Your task to perform on an android device: Open network settings Image 0: 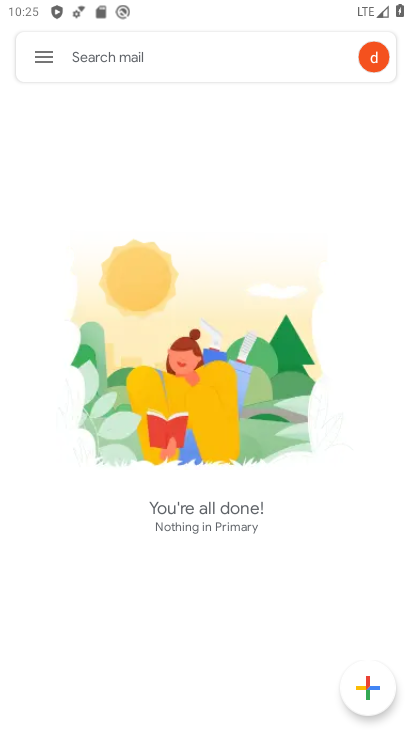
Step 0: press home button
Your task to perform on an android device: Open network settings Image 1: 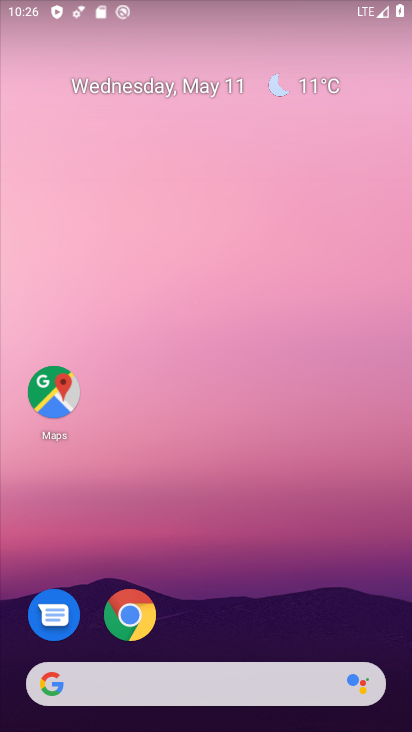
Step 1: drag from (256, 571) to (240, 107)
Your task to perform on an android device: Open network settings Image 2: 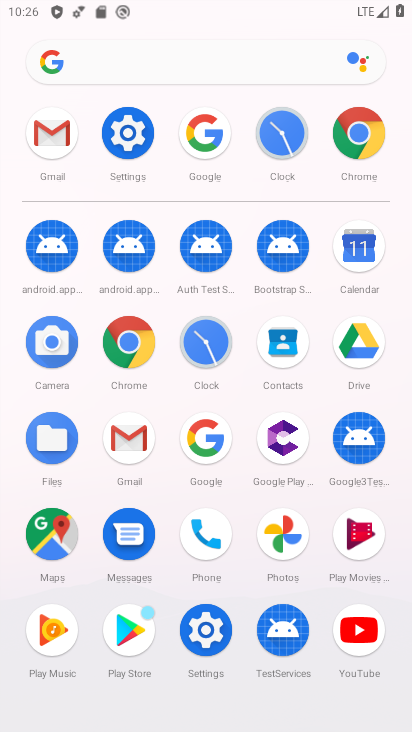
Step 2: click (129, 140)
Your task to perform on an android device: Open network settings Image 3: 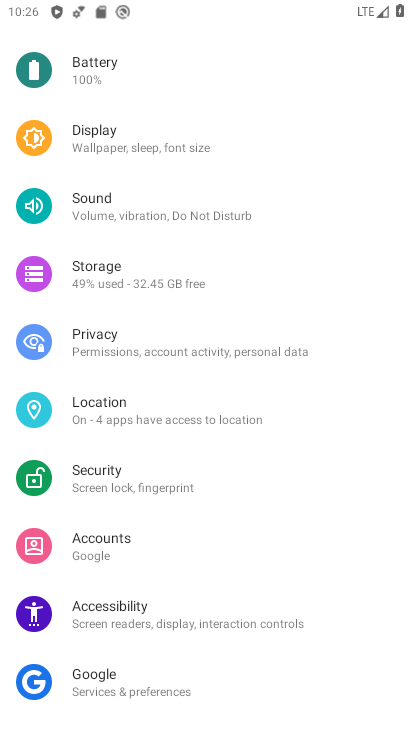
Step 3: drag from (159, 650) to (290, 33)
Your task to perform on an android device: Open network settings Image 4: 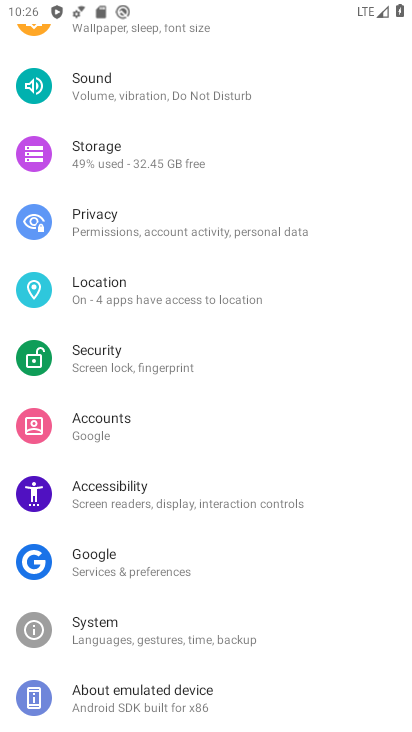
Step 4: drag from (189, 204) to (186, 719)
Your task to perform on an android device: Open network settings Image 5: 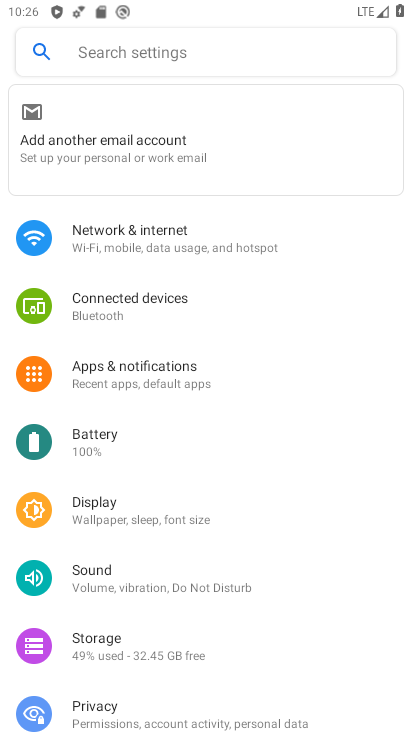
Step 5: drag from (196, 235) to (224, 617)
Your task to perform on an android device: Open network settings Image 6: 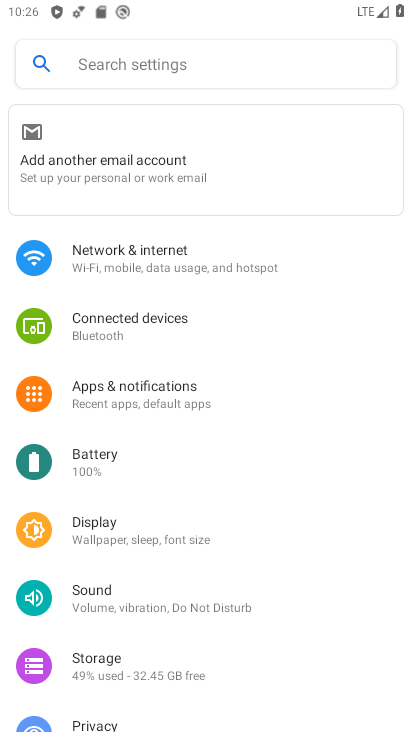
Step 6: click (163, 263)
Your task to perform on an android device: Open network settings Image 7: 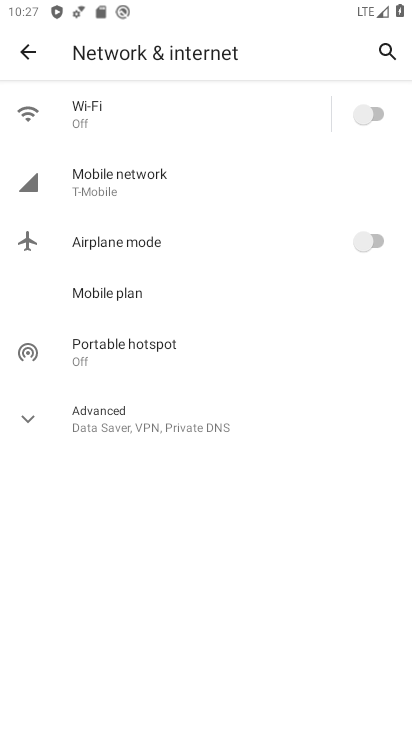
Step 7: task complete